Your task to perform on an android device: Open Yahoo.com Image 0: 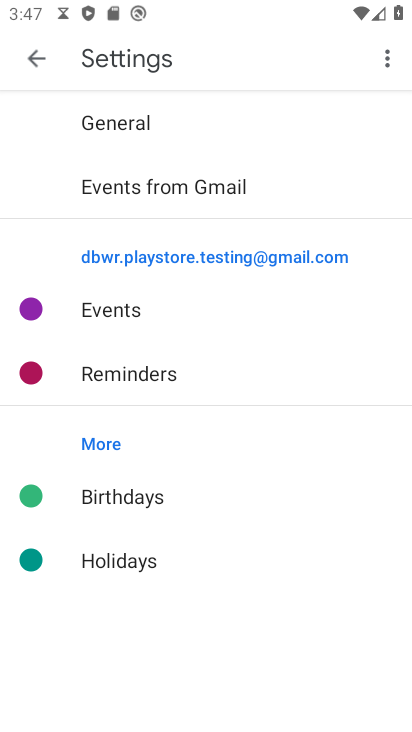
Step 0: press home button
Your task to perform on an android device: Open Yahoo.com Image 1: 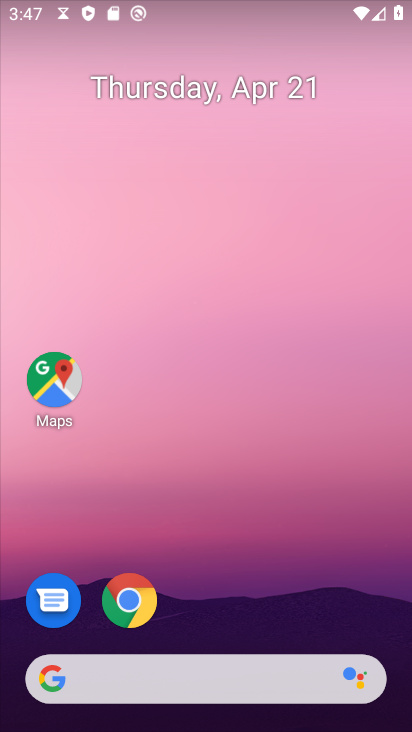
Step 1: click (130, 597)
Your task to perform on an android device: Open Yahoo.com Image 2: 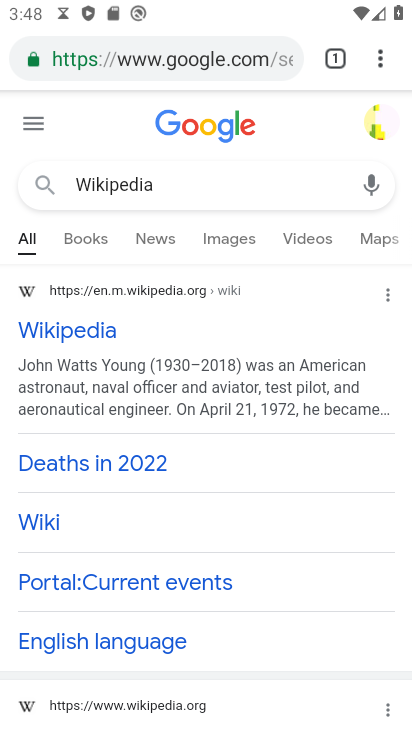
Step 2: click (257, 62)
Your task to perform on an android device: Open Yahoo.com Image 3: 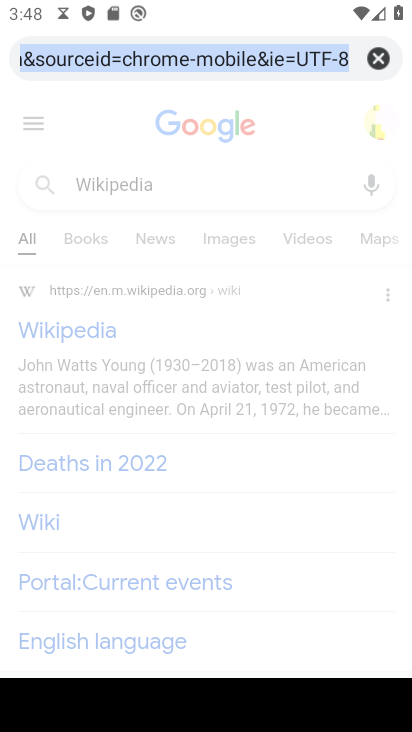
Step 3: click (376, 62)
Your task to perform on an android device: Open Yahoo.com Image 4: 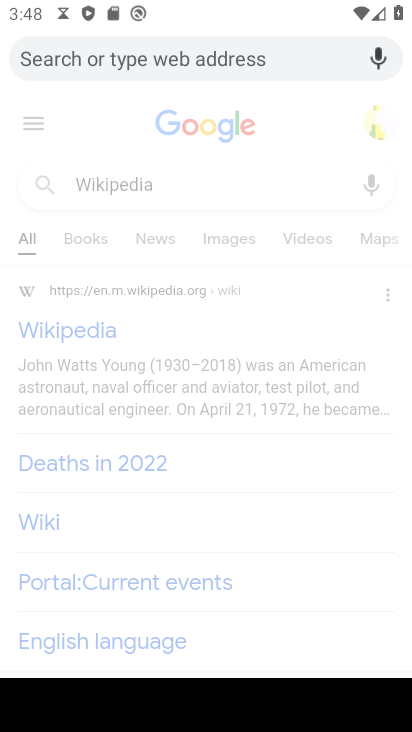
Step 4: type "Yahoo.com"
Your task to perform on an android device: Open Yahoo.com Image 5: 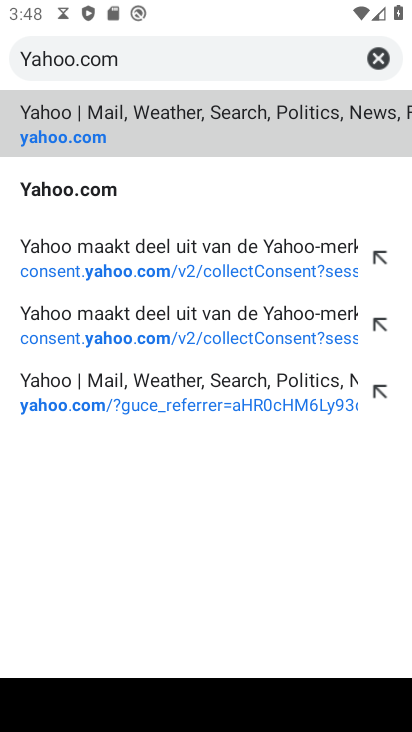
Step 5: click (112, 189)
Your task to perform on an android device: Open Yahoo.com Image 6: 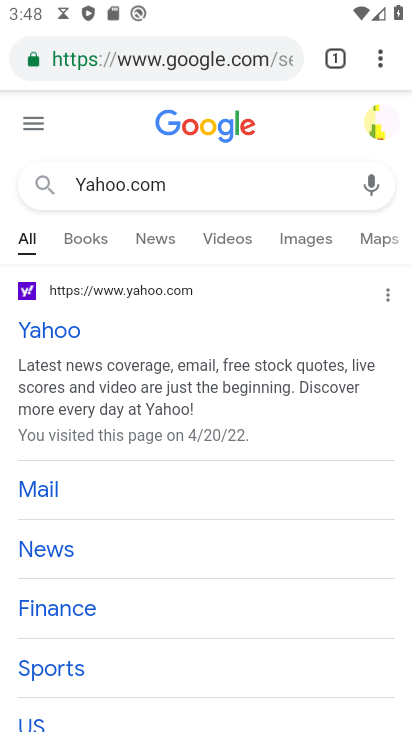
Step 6: task complete